Your task to perform on an android device: open app "Messenger Lite" (install if not already installed) and enter user name: "cataclysmic@outlook.com" and password: "victoriously" Image 0: 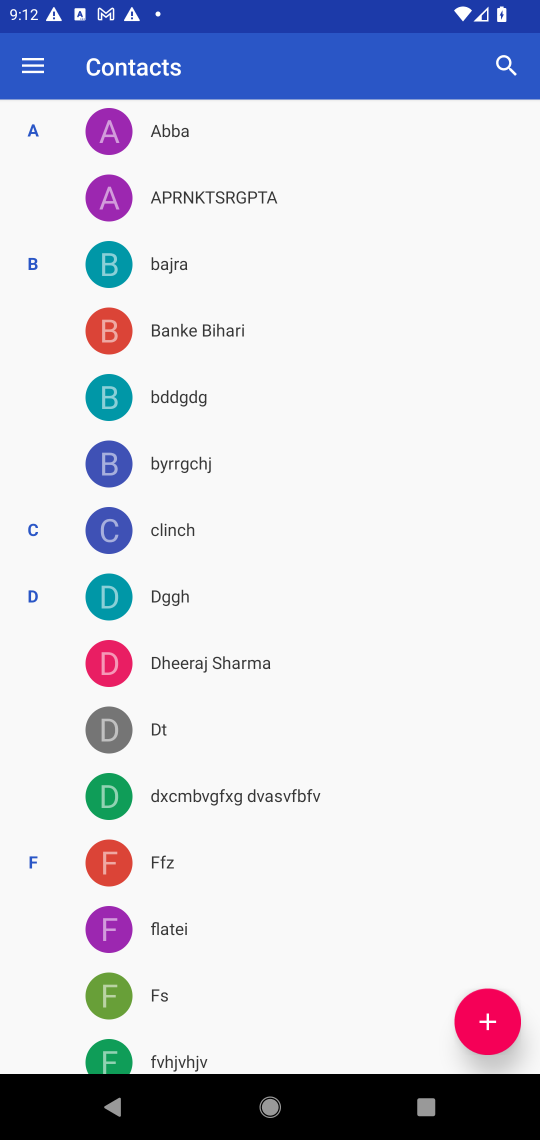
Step 0: press home button
Your task to perform on an android device: open app "Messenger Lite" (install if not already installed) and enter user name: "cataclysmic@outlook.com" and password: "victoriously" Image 1: 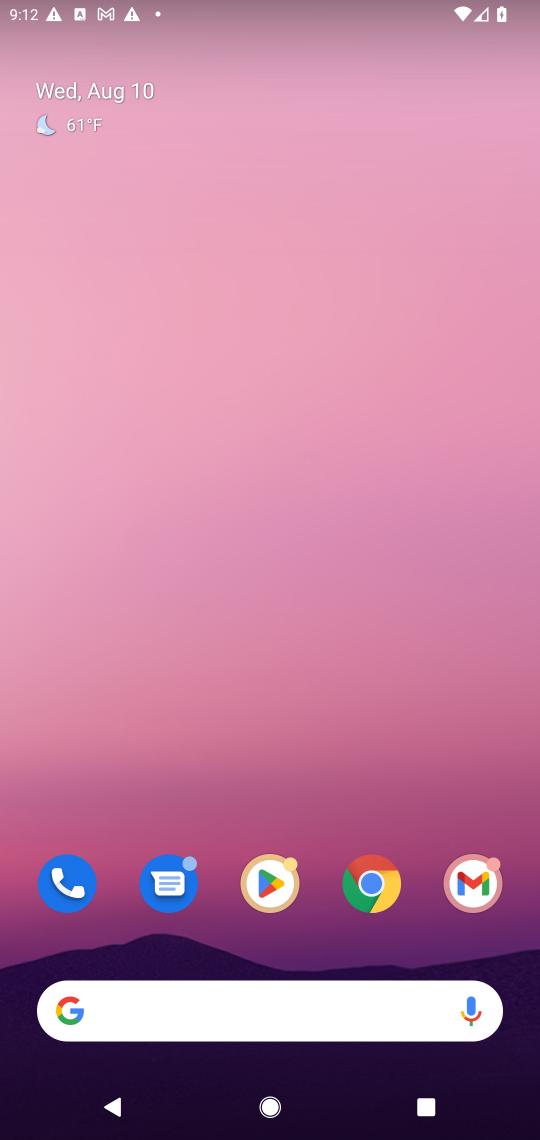
Step 1: click (269, 878)
Your task to perform on an android device: open app "Messenger Lite" (install if not already installed) and enter user name: "cataclysmic@outlook.com" and password: "victoriously" Image 2: 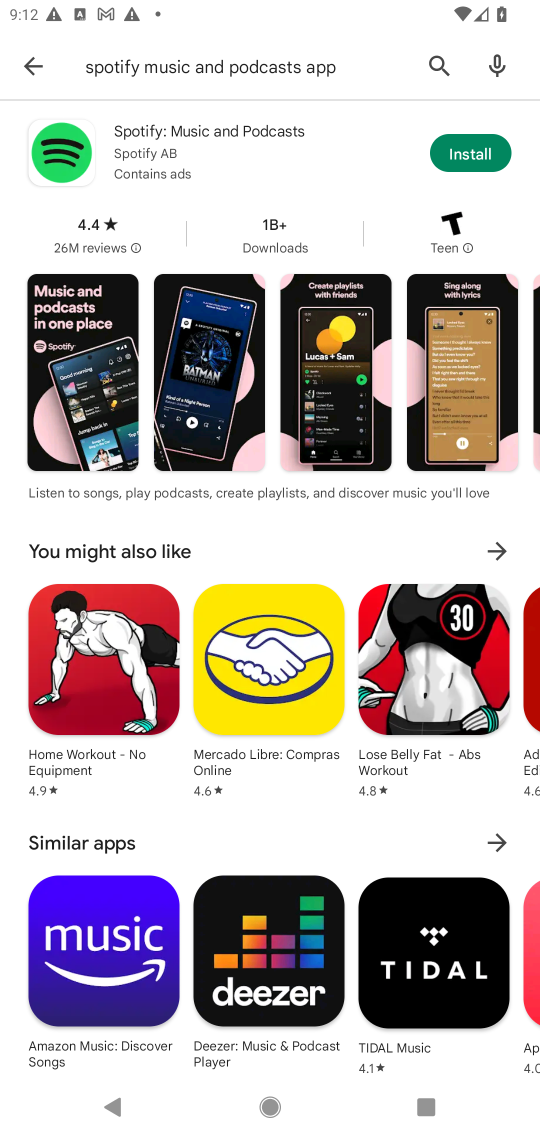
Step 2: click (469, 66)
Your task to perform on an android device: open app "Messenger Lite" (install if not already installed) and enter user name: "cataclysmic@outlook.com" and password: "victoriously" Image 3: 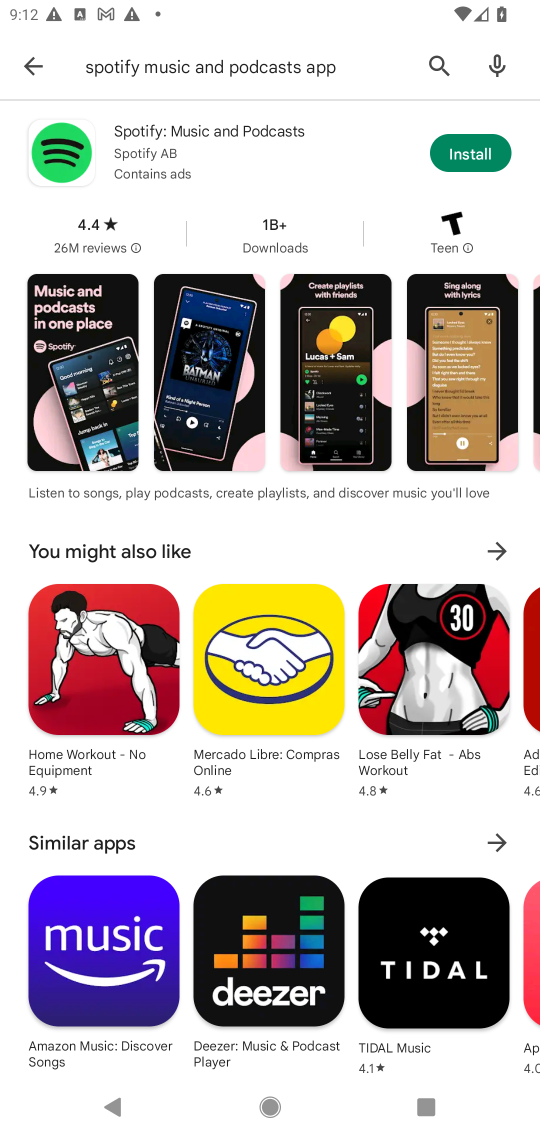
Step 3: click (447, 61)
Your task to perform on an android device: open app "Messenger Lite" (install if not already installed) and enter user name: "cataclysmic@outlook.com" and password: "victoriously" Image 4: 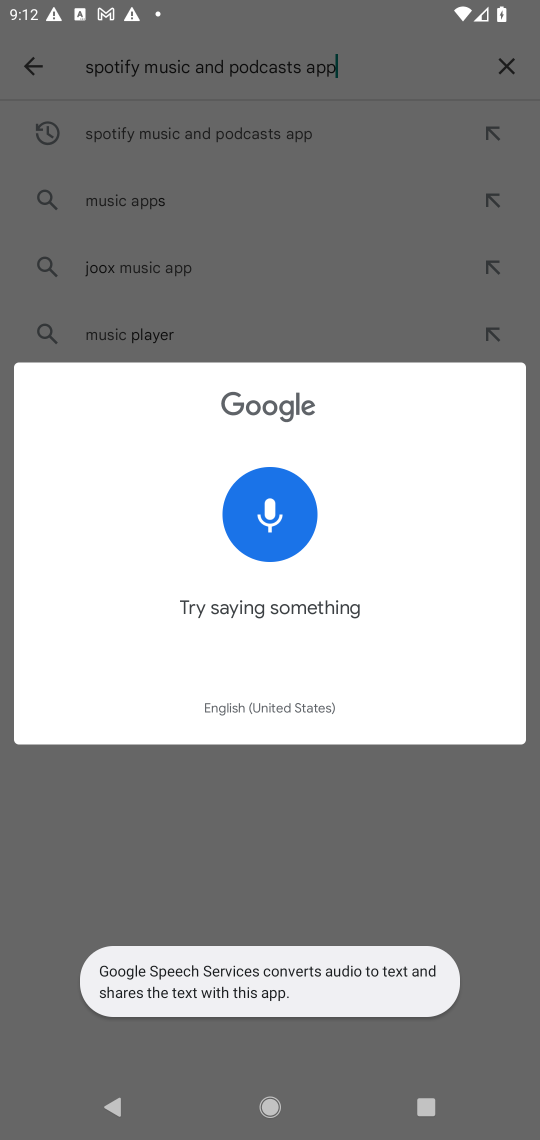
Step 4: click (505, 77)
Your task to perform on an android device: open app "Messenger Lite" (install if not already installed) and enter user name: "cataclysmic@outlook.com" and password: "victoriously" Image 5: 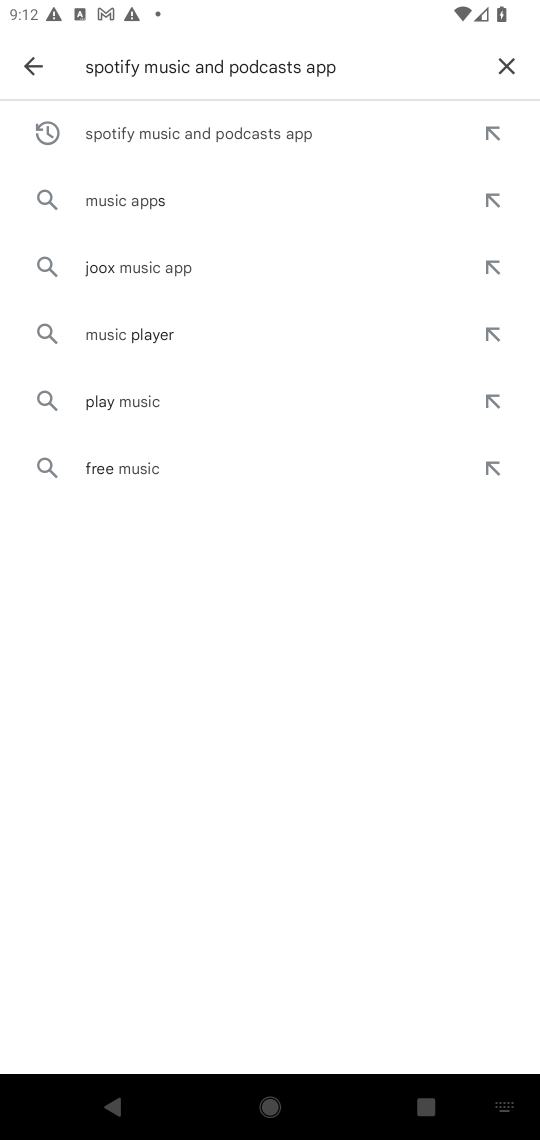
Step 5: click (499, 62)
Your task to perform on an android device: open app "Messenger Lite" (install if not already installed) and enter user name: "cataclysmic@outlook.com" and password: "victoriously" Image 6: 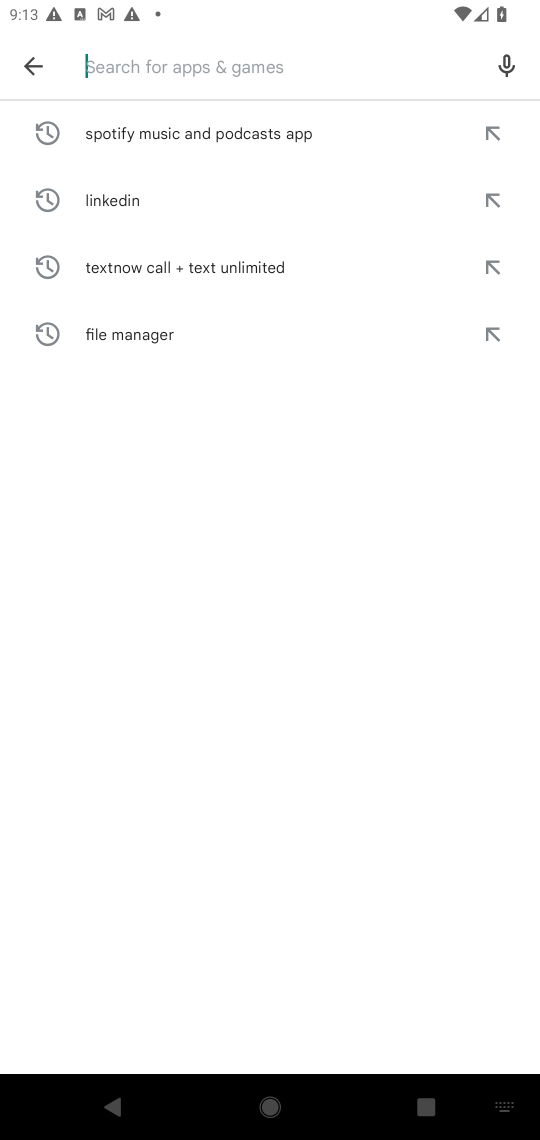
Step 6: type "Messenger Lite"
Your task to perform on an android device: open app "Messenger Lite" (install if not already installed) and enter user name: "cataclysmic@outlook.com" and password: "victoriously" Image 7: 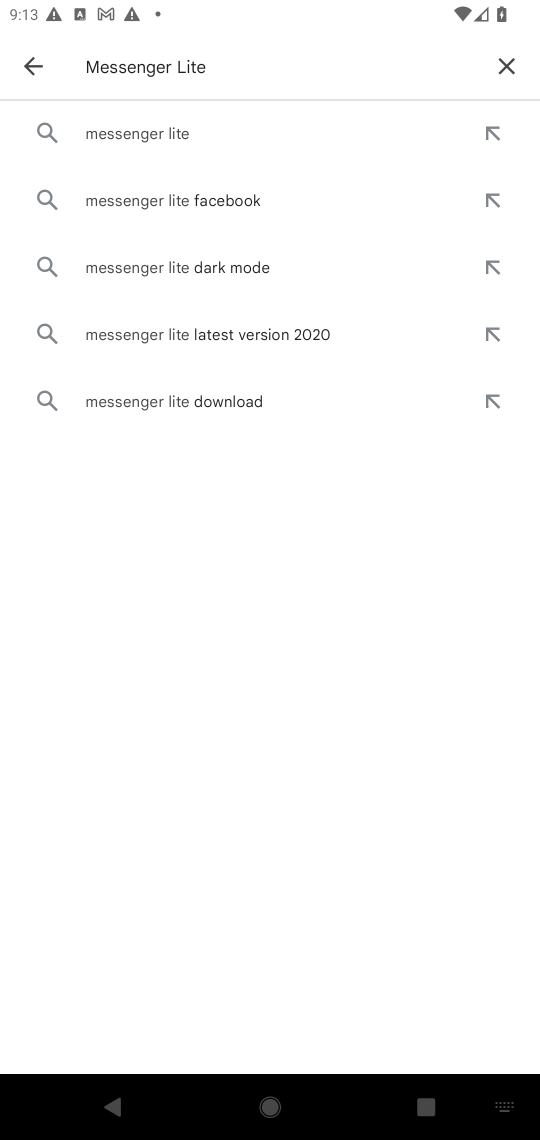
Step 7: click (168, 134)
Your task to perform on an android device: open app "Messenger Lite" (install if not already installed) and enter user name: "cataclysmic@outlook.com" and password: "victoriously" Image 8: 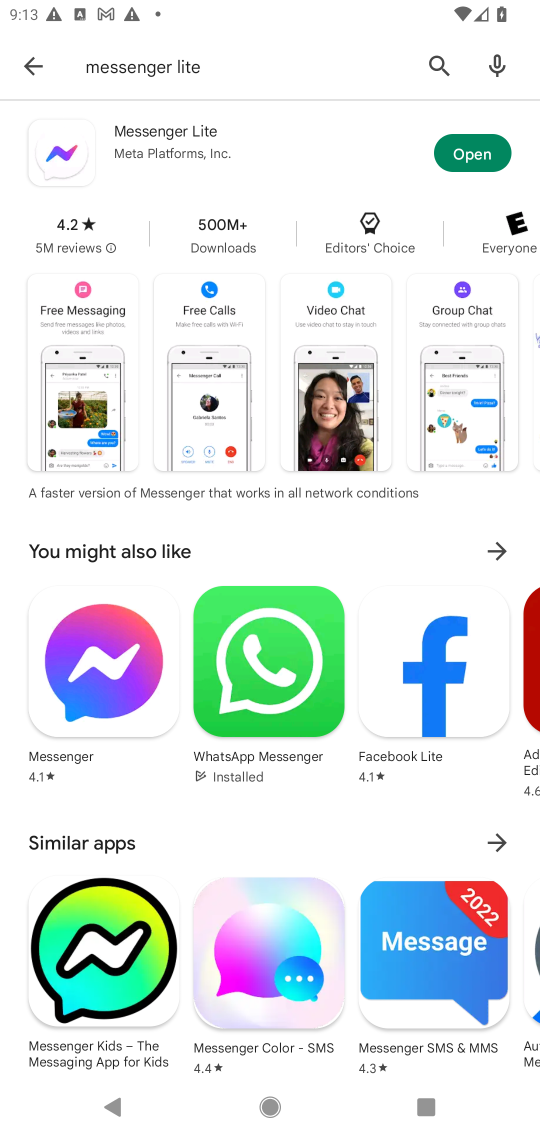
Step 8: click (477, 142)
Your task to perform on an android device: open app "Messenger Lite" (install if not already installed) and enter user name: "cataclysmic@outlook.com" and password: "victoriously" Image 9: 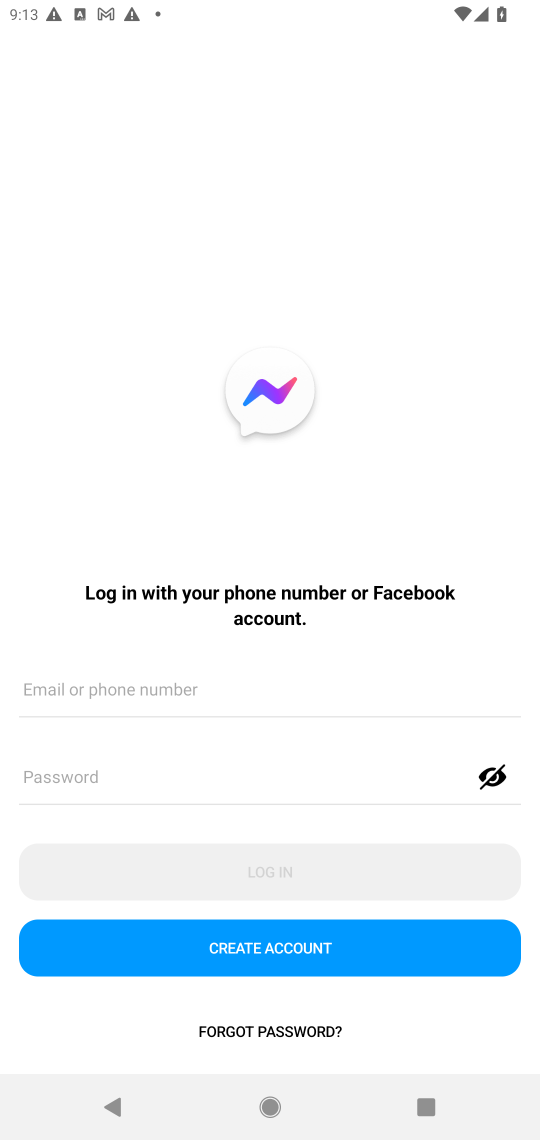
Step 9: task complete